Your task to perform on an android device: Go to eBay Image 0: 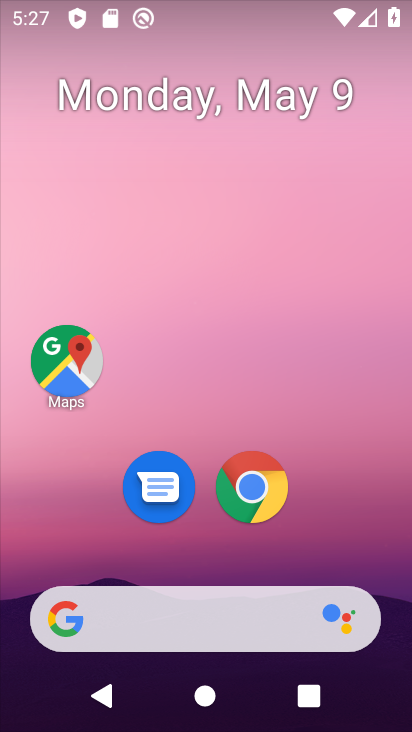
Step 0: click (255, 511)
Your task to perform on an android device: Go to eBay Image 1: 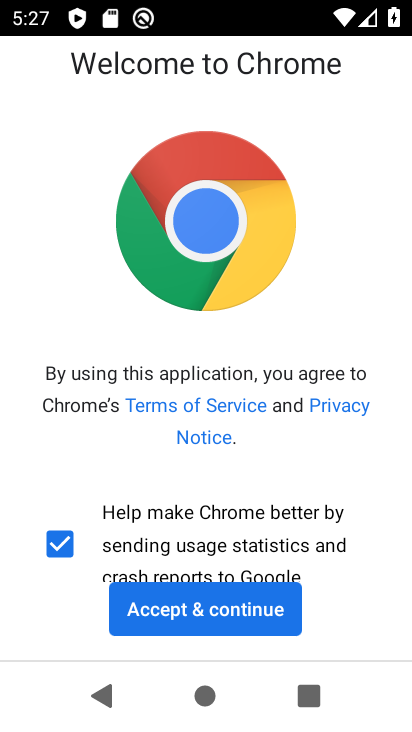
Step 1: click (215, 619)
Your task to perform on an android device: Go to eBay Image 2: 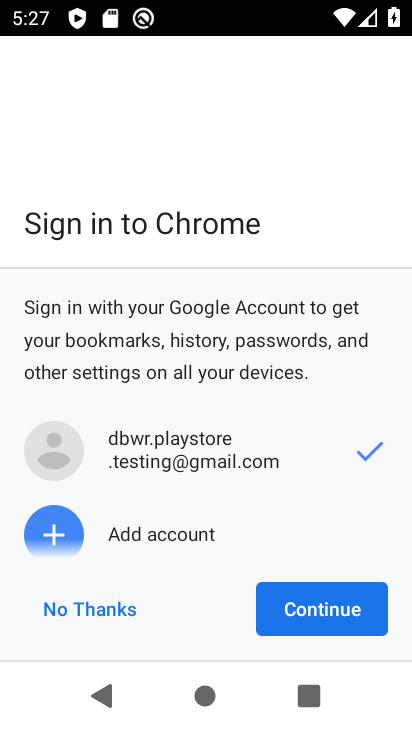
Step 2: click (297, 617)
Your task to perform on an android device: Go to eBay Image 3: 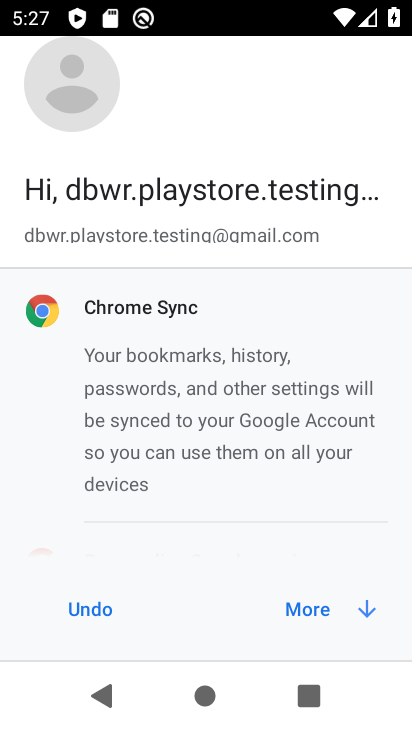
Step 3: click (320, 608)
Your task to perform on an android device: Go to eBay Image 4: 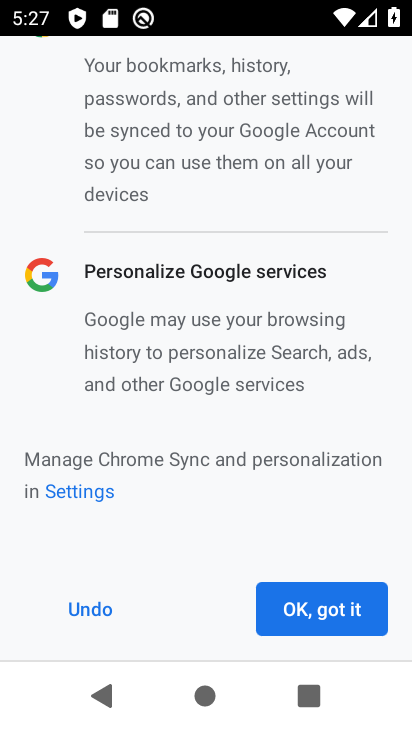
Step 4: click (316, 619)
Your task to perform on an android device: Go to eBay Image 5: 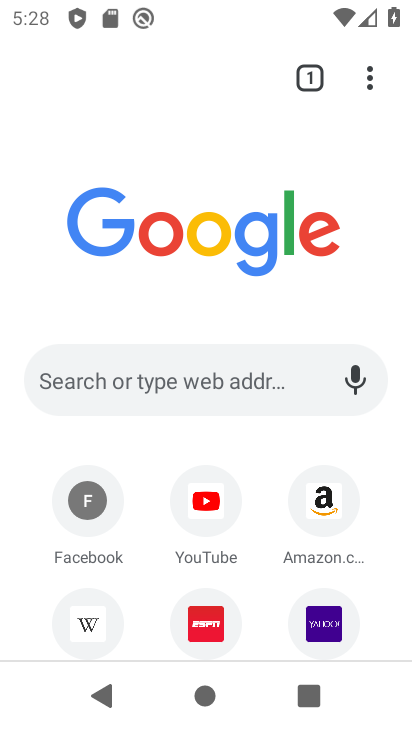
Step 5: drag from (156, 601) to (202, 254)
Your task to perform on an android device: Go to eBay Image 6: 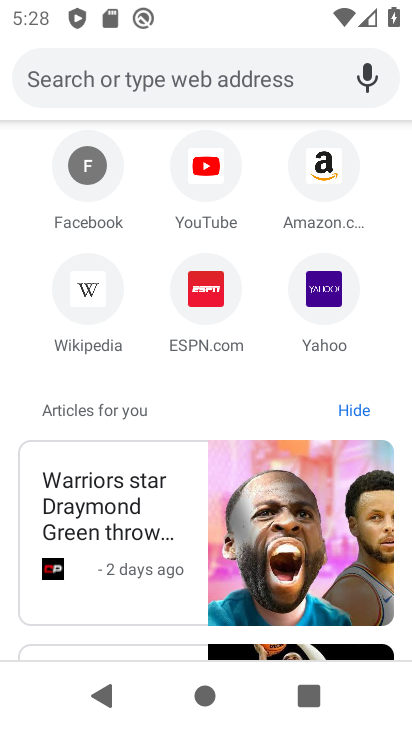
Step 6: drag from (170, 251) to (53, 731)
Your task to perform on an android device: Go to eBay Image 7: 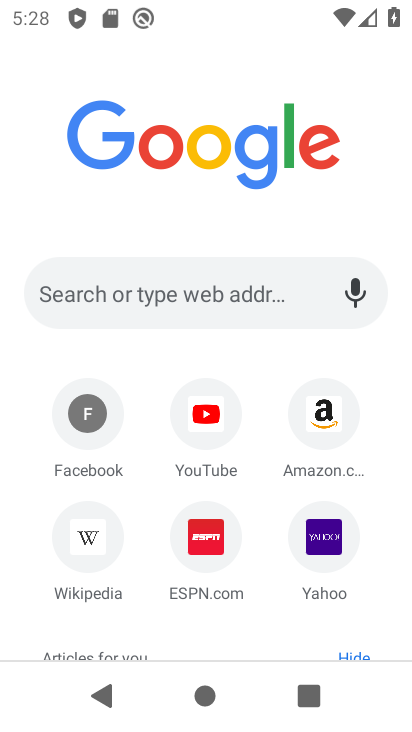
Step 7: drag from (199, 150) to (194, 699)
Your task to perform on an android device: Go to eBay Image 8: 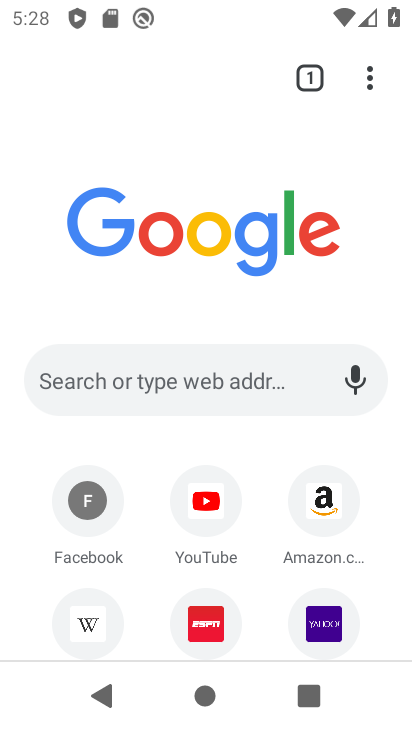
Step 8: click (199, 389)
Your task to perform on an android device: Go to eBay Image 9: 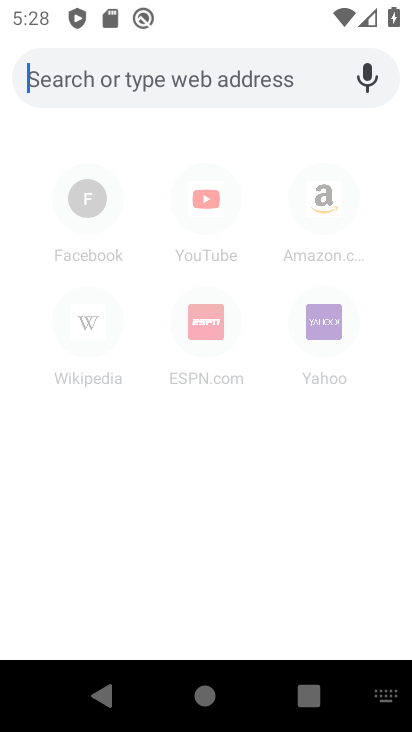
Step 9: click (177, 81)
Your task to perform on an android device: Go to eBay Image 10: 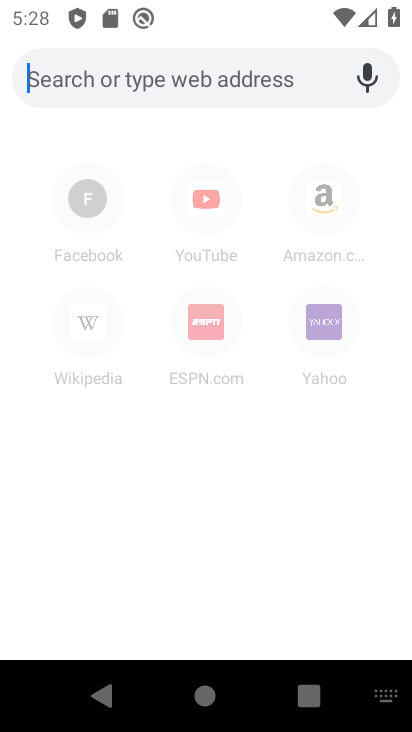
Step 10: type "www.ebay.com"
Your task to perform on an android device: Go to eBay Image 11: 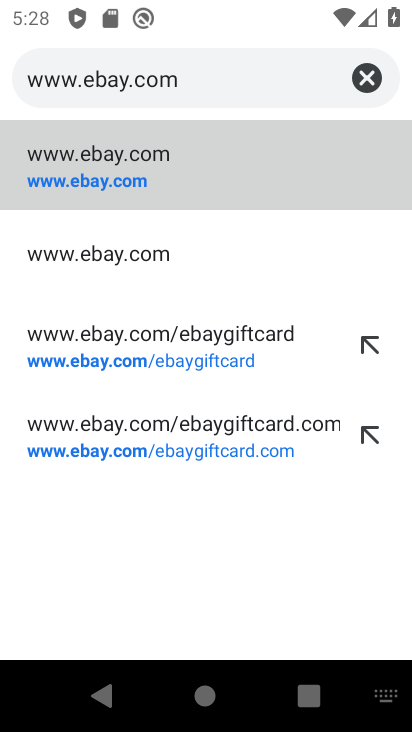
Step 11: click (104, 181)
Your task to perform on an android device: Go to eBay Image 12: 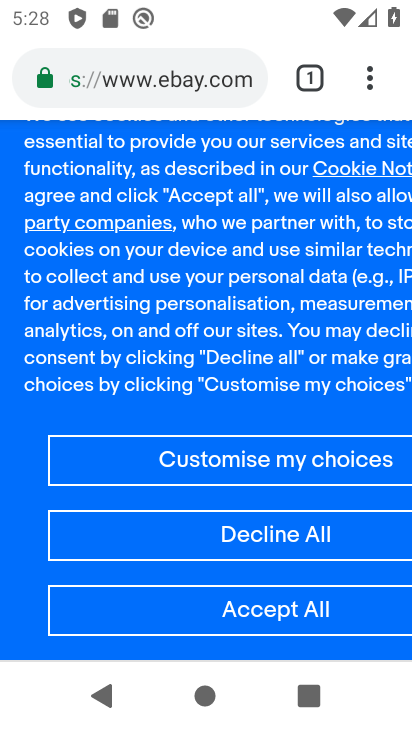
Step 12: task complete